Your task to perform on an android device: Open internet settings Image 0: 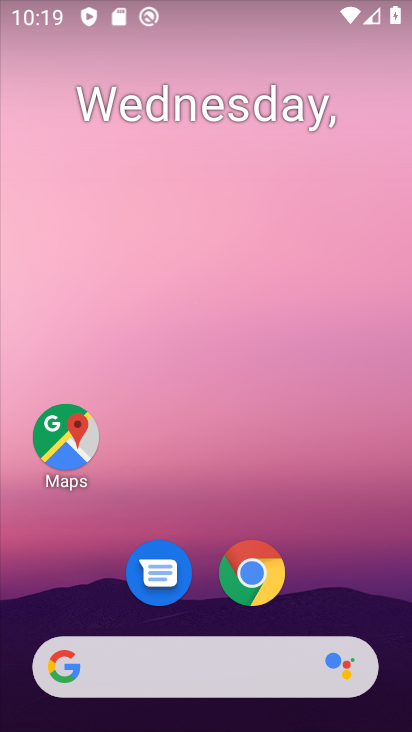
Step 0: drag from (363, 600) to (366, 171)
Your task to perform on an android device: Open internet settings Image 1: 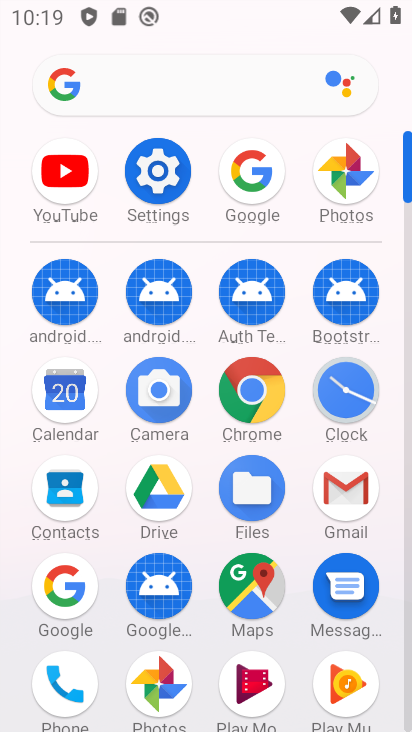
Step 1: click (173, 170)
Your task to perform on an android device: Open internet settings Image 2: 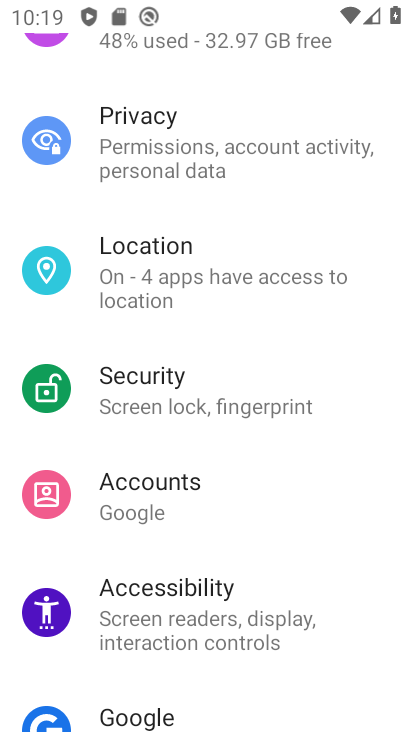
Step 2: drag from (346, 455) to (342, 559)
Your task to perform on an android device: Open internet settings Image 3: 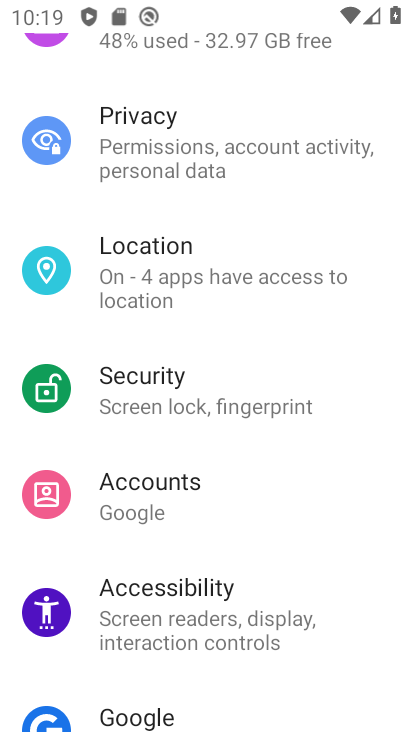
Step 3: drag from (371, 89) to (386, 596)
Your task to perform on an android device: Open internet settings Image 4: 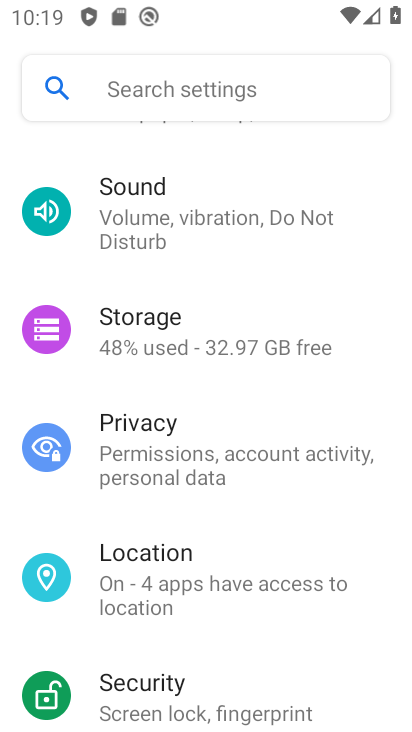
Step 4: drag from (381, 284) to (380, 731)
Your task to perform on an android device: Open internet settings Image 5: 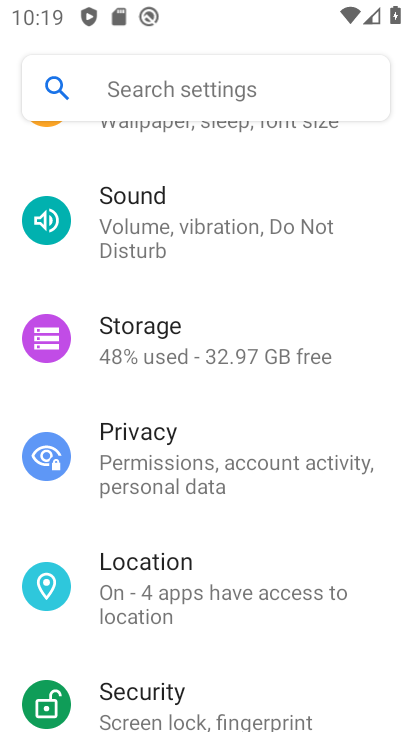
Step 5: drag from (377, 320) to (368, 506)
Your task to perform on an android device: Open internet settings Image 6: 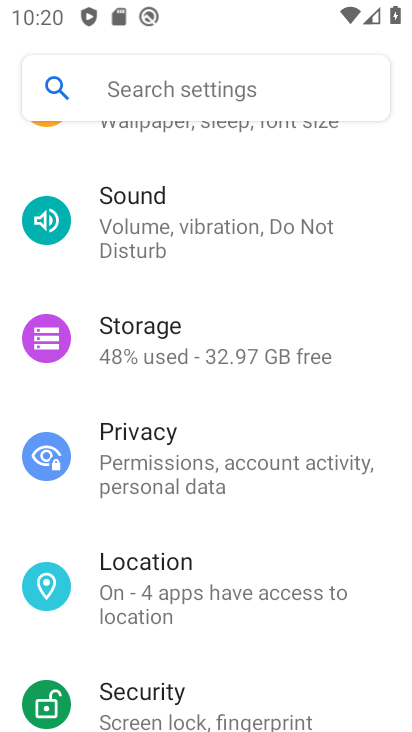
Step 6: drag from (375, 422) to (369, 689)
Your task to perform on an android device: Open internet settings Image 7: 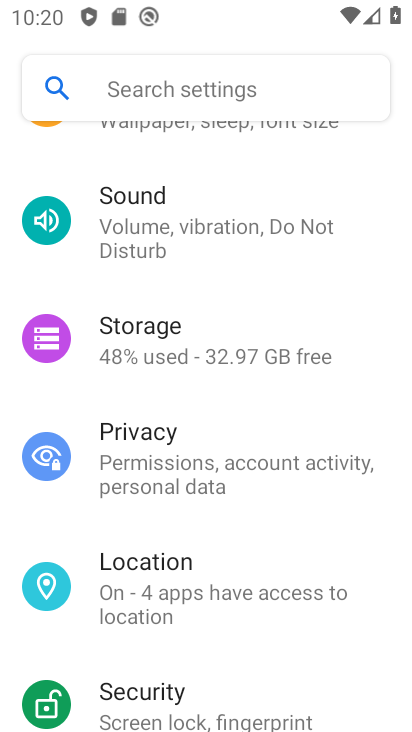
Step 7: drag from (370, 148) to (400, 662)
Your task to perform on an android device: Open internet settings Image 8: 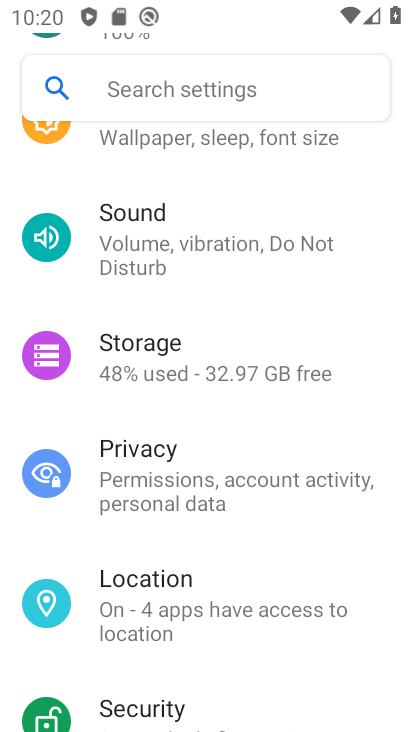
Step 8: drag from (373, 457) to (377, 603)
Your task to perform on an android device: Open internet settings Image 9: 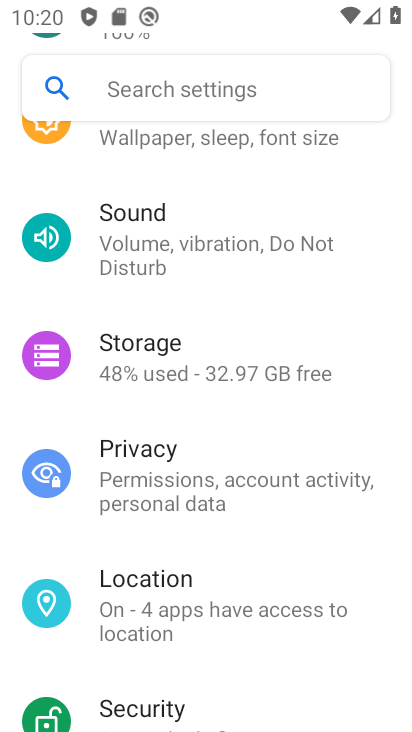
Step 9: drag from (372, 309) to (392, 601)
Your task to perform on an android device: Open internet settings Image 10: 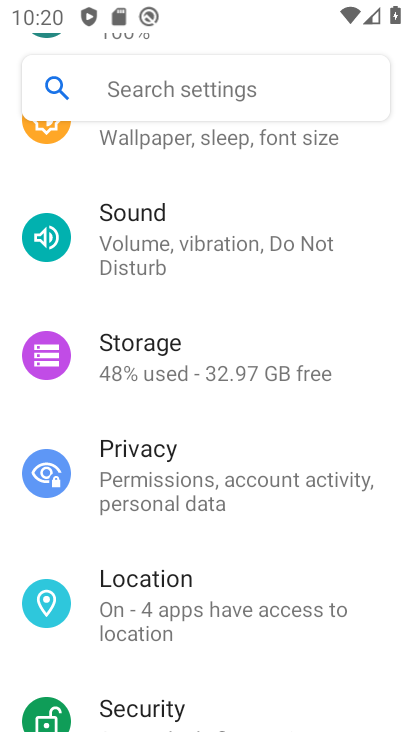
Step 10: drag from (387, 163) to (316, 636)
Your task to perform on an android device: Open internet settings Image 11: 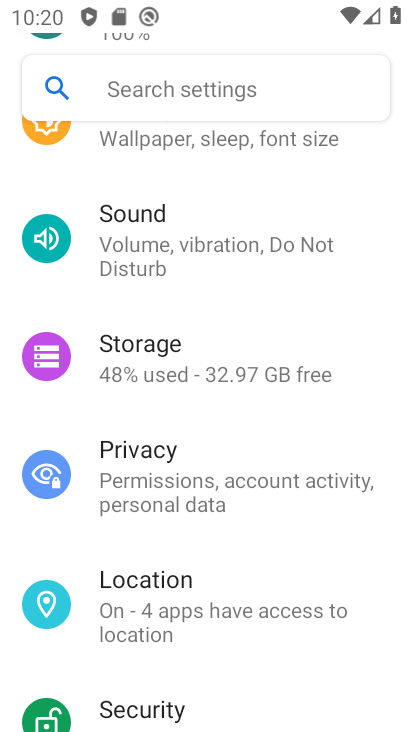
Step 11: drag from (366, 165) to (345, 724)
Your task to perform on an android device: Open internet settings Image 12: 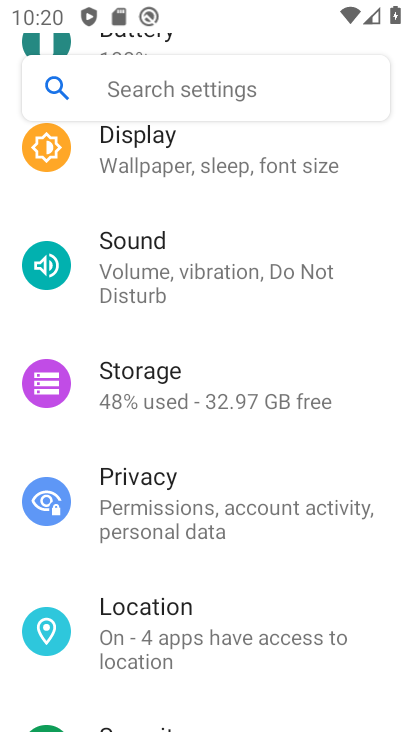
Step 12: drag from (379, 165) to (371, 582)
Your task to perform on an android device: Open internet settings Image 13: 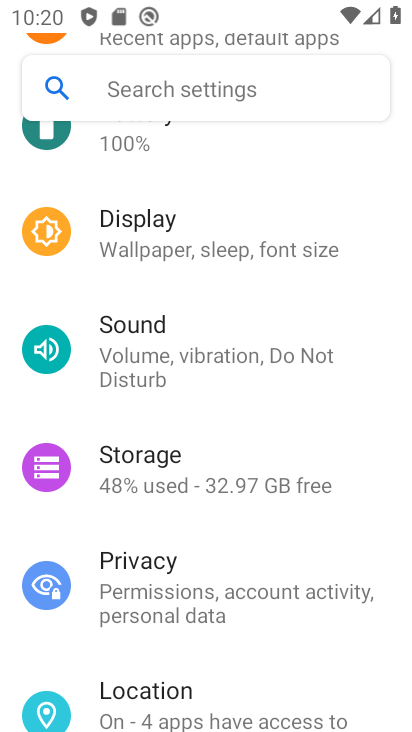
Step 13: drag from (386, 323) to (377, 682)
Your task to perform on an android device: Open internet settings Image 14: 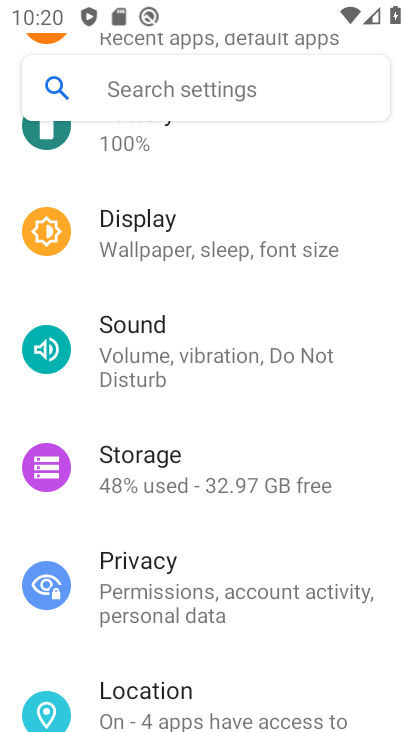
Step 14: drag from (383, 184) to (374, 626)
Your task to perform on an android device: Open internet settings Image 15: 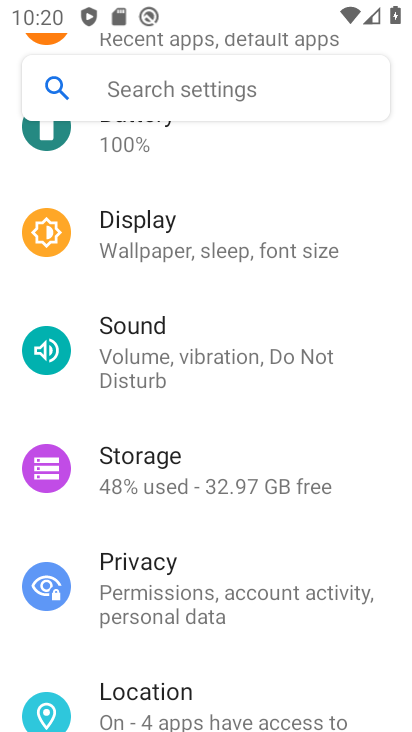
Step 15: drag from (365, 430) to (360, 632)
Your task to perform on an android device: Open internet settings Image 16: 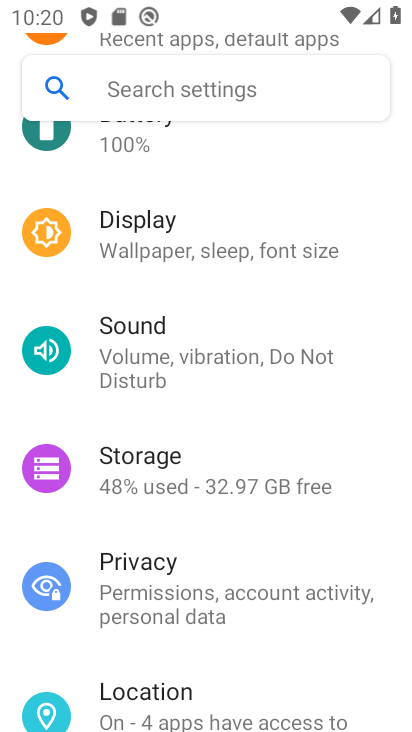
Step 16: drag from (387, 582) to (386, 626)
Your task to perform on an android device: Open internet settings Image 17: 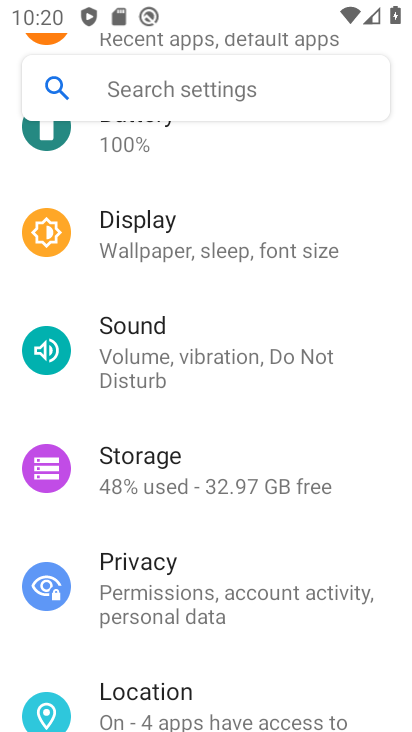
Step 17: drag from (364, 161) to (366, 711)
Your task to perform on an android device: Open internet settings Image 18: 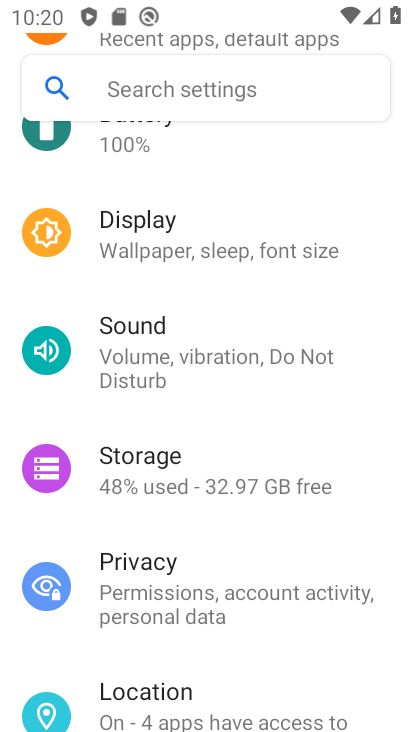
Step 18: click (366, 519)
Your task to perform on an android device: Open internet settings Image 19: 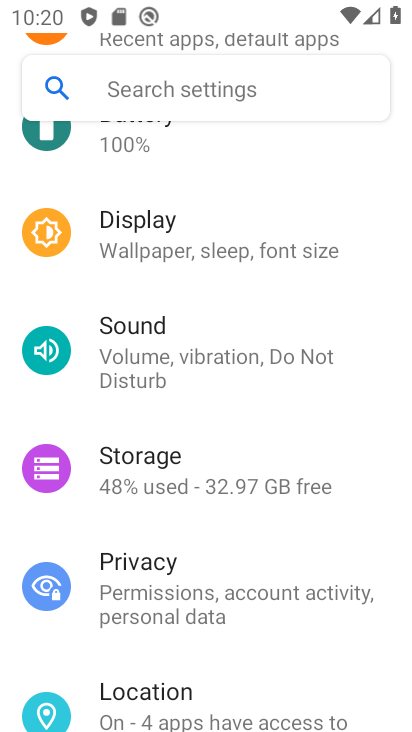
Step 19: drag from (386, 344) to (376, 587)
Your task to perform on an android device: Open internet settings Image 20: 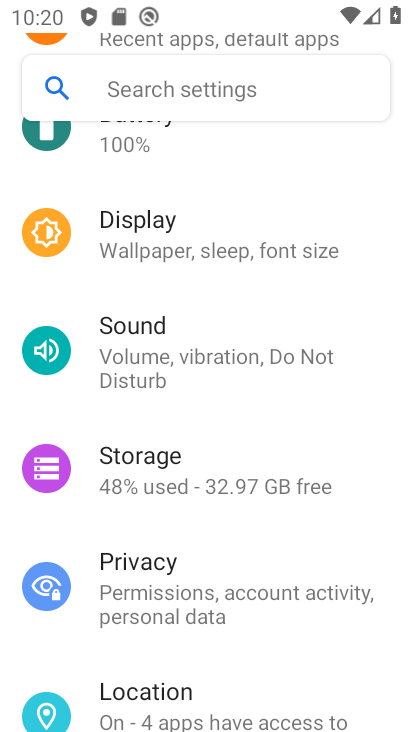
Step 20: drag from (384, 407) to (386, 594)
Your task to perform on an android device: Open internet settings Image 21: 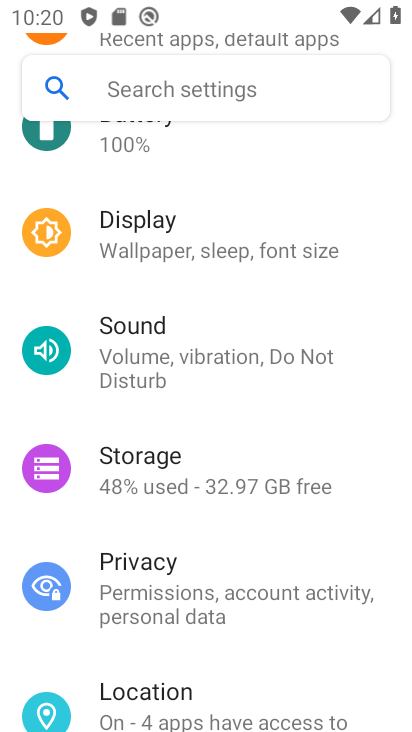
Step 21: drag from (364, 544) to (357, 731)
Your task to perform on an android device: Open internet settings Image 22: 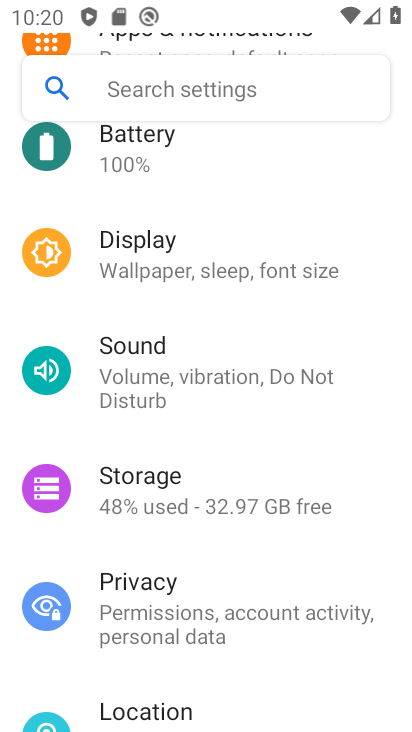
Step 22: drag from (387, 523) to (393, 656)
Your task to perform on an android device: Open internet settings Image 23: 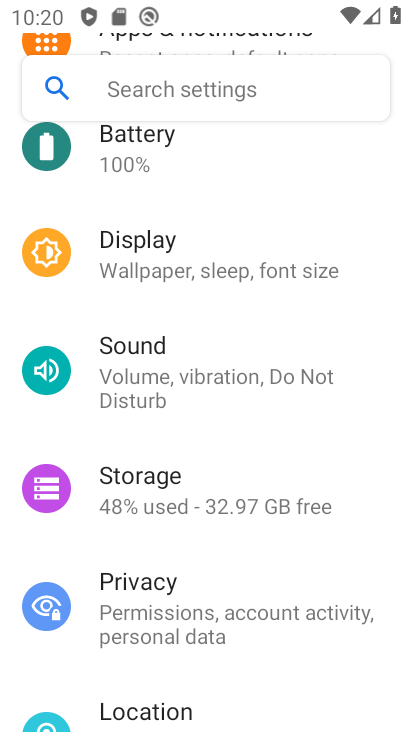
Step 23: drag from (390, 189) to (396, 581)
Your task to perform on an android device: Open internet settings Image 24: 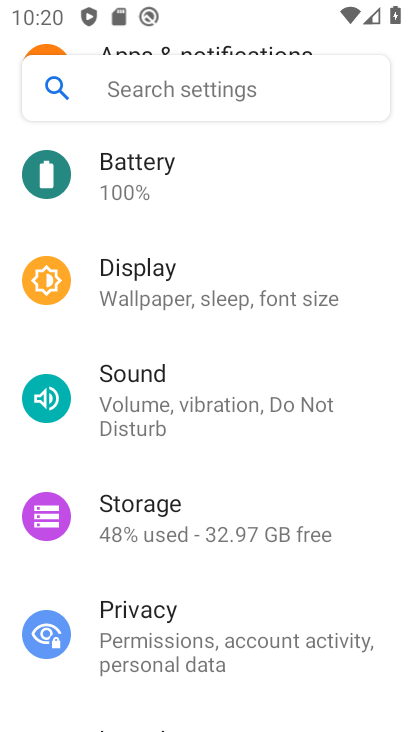
Step 24: drag from (388, 262) to (410, 582)
Your task to perform on an android device: Open internet settings Image 25: 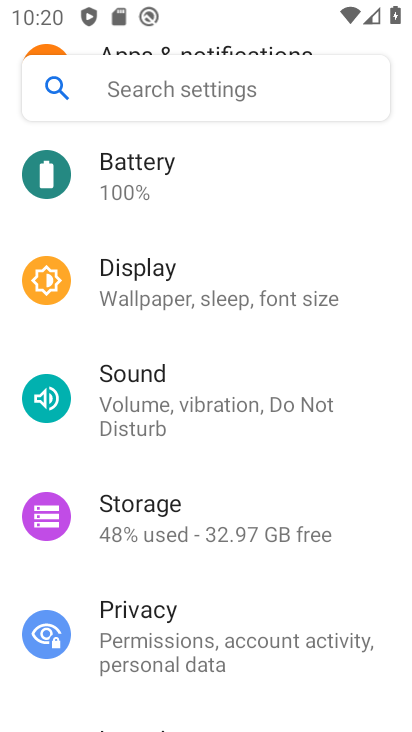
Step 25: drag from (411, 411) to (410, 630)
Your task to perform on an android device: Open internet settings Image 26: 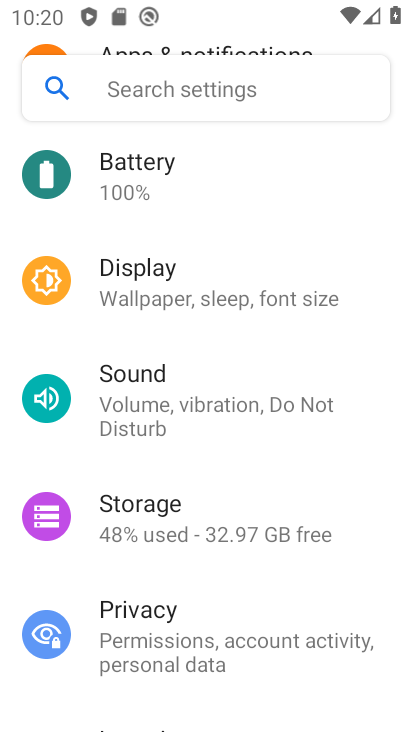
Step 26: drag from (372, 281) to (388, 544)
Your task to perform on an android device: Open internet settings Image 27: 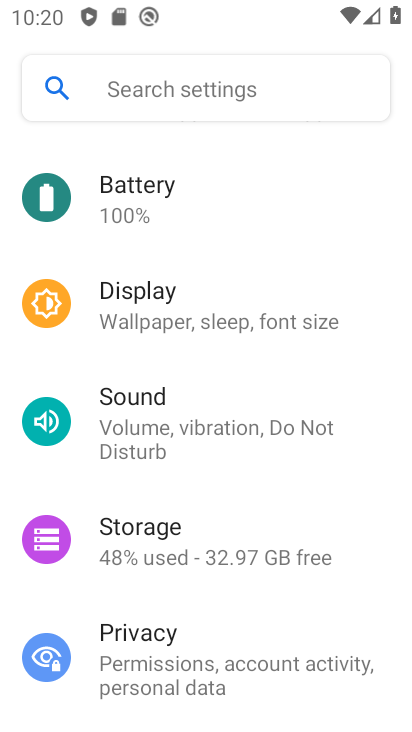
Step 27: drag from (402, 235) to (403, 528)
Your task to perform on an android device: Open internet settings Image 28: 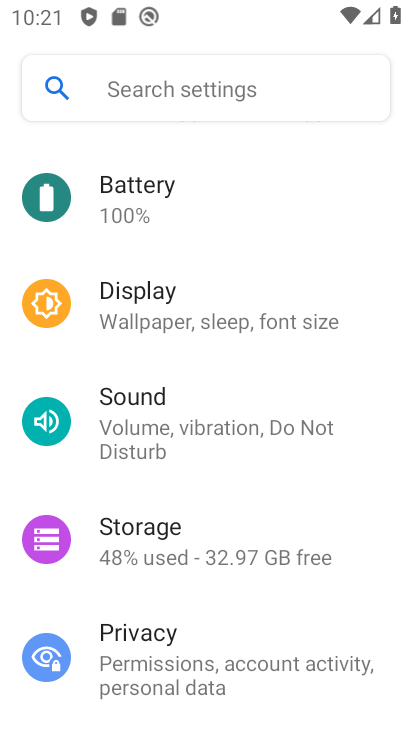
Step 28: drag from (367, 193) to (384, 625)
Your task to perform on an android device: Open internet settings Image 29: 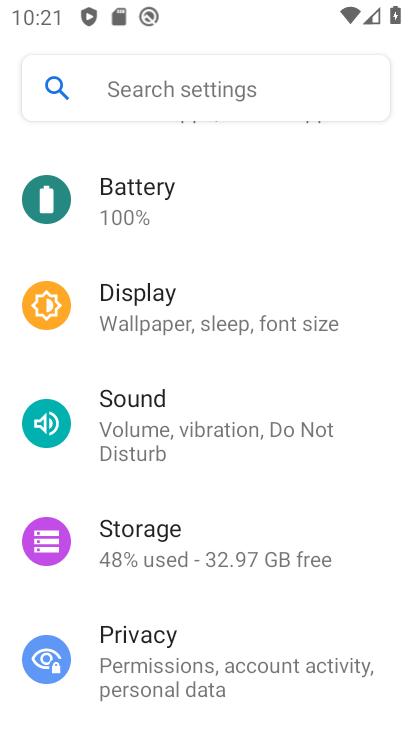
Step 29: drag from (370, 530) to (365, 587)
Your task to perform on an android device: Open internet settings Image 30: 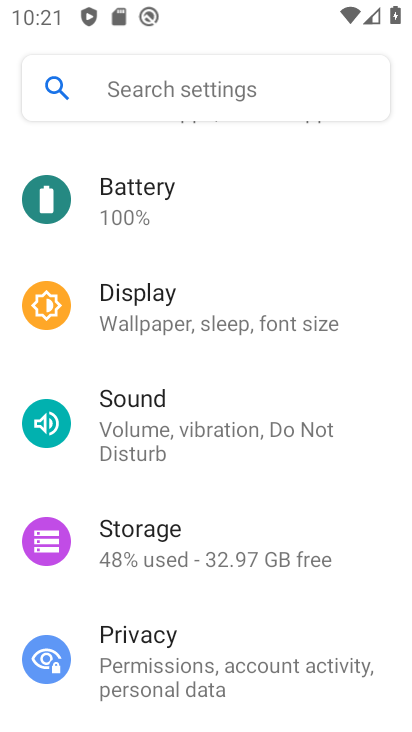
Step 30: drag from (382, 311) to (385, 498)
Your task to perform on an android device: Open internet settings Image 31: 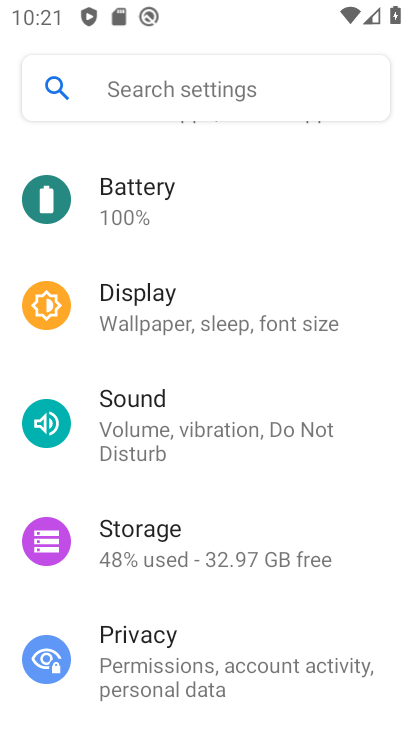
Step 31: drag from (407, 602) to (404, 661)
Your task to perform on an android device: Open internet settings Image 32: 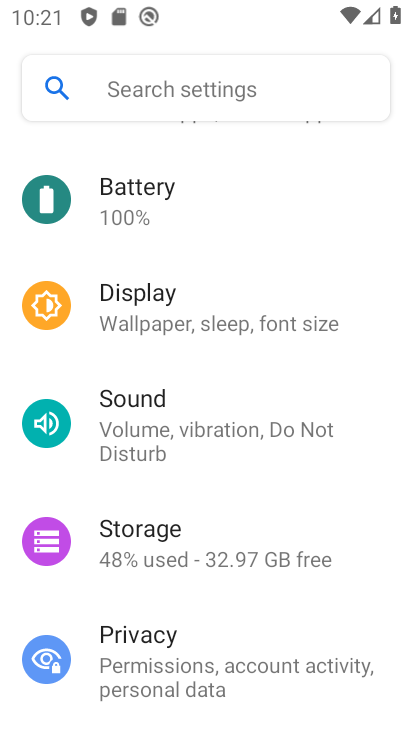
Step 32: drag from (360, 600) to (360, 634)
Your task to perform on an android device: Open internet settings Image 33: 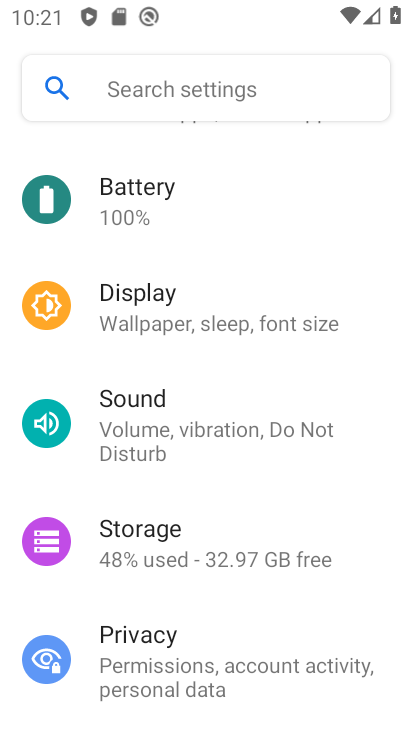
Step 33: drag from (370, 188) to (384, 551)
Your task to perform on an android device: Open internet settings Image 34: 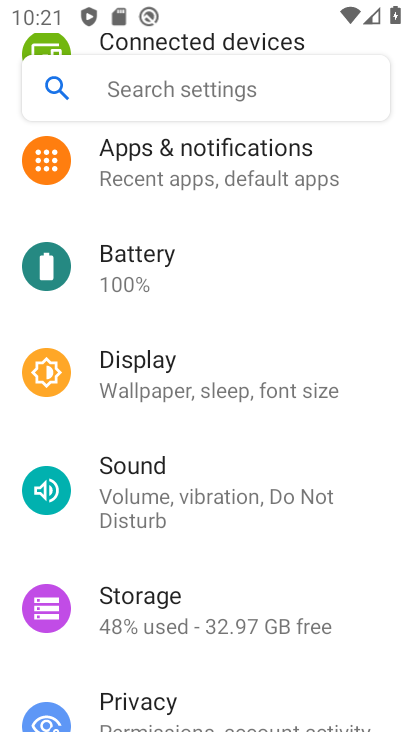
Step 34: drag from (366, 156) to (390, 659)
Your task to perform on an android device: Open internet settings Image 35: 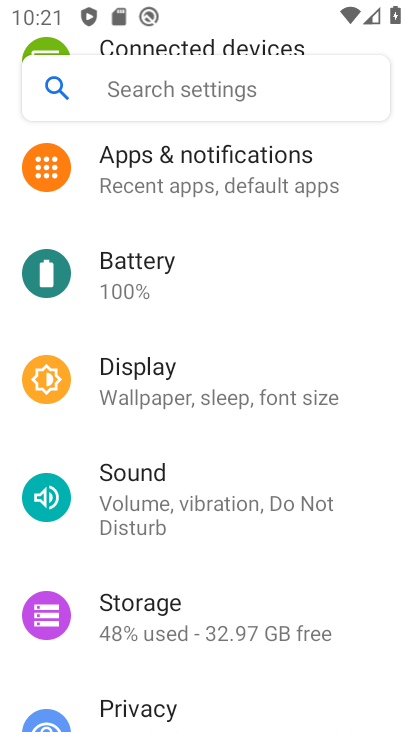
Step 35: drag from (359, 162) to (375, 546)
Your task to perform on an android device: Open internet settings Image 36: 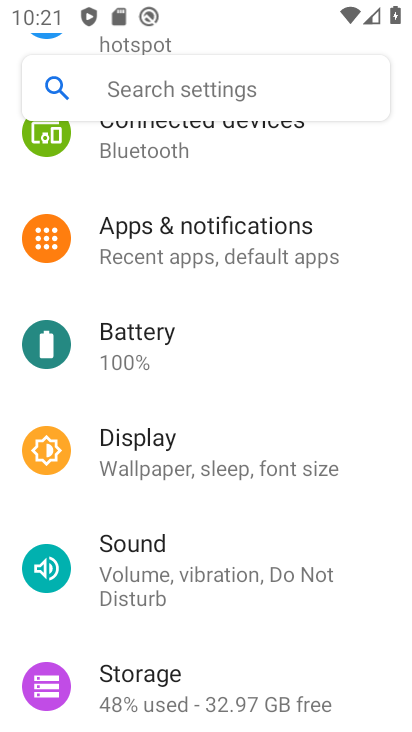
Step 36: drag from (394, 415) to (393, 516)
Your task to perform on an android device: Open internet settings Image 37: 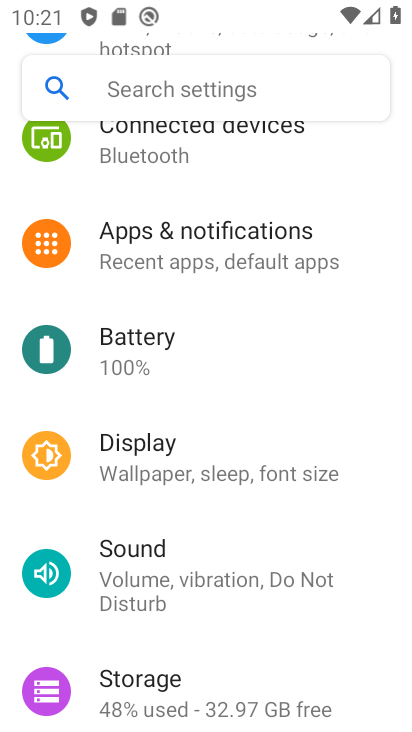
Step 37: drag from (378, 143) to (380, 634)
Your task to perform on an android device: Open internet settings Image 38: 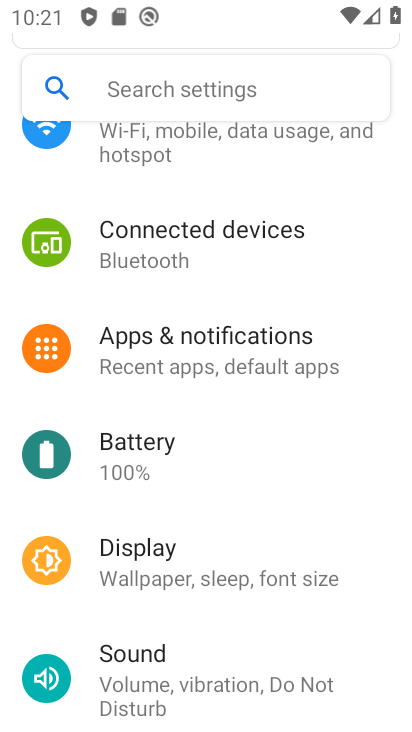
Step 38: drag from (367, 507) to (367, 698)
Your task to perform on an android device: Open internet settings Image 39: 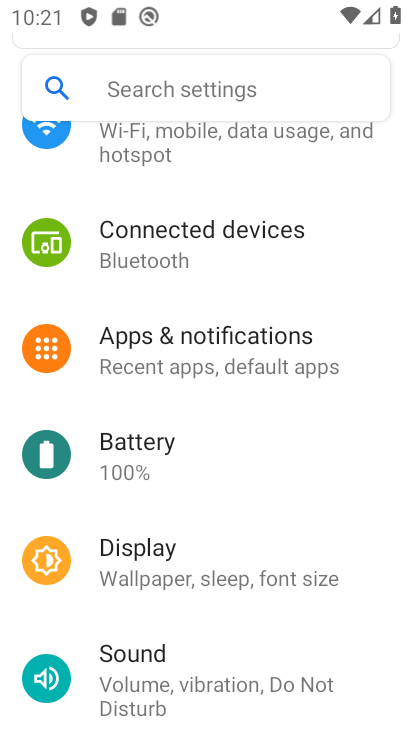
Step 39: click (168, 135)
Your task to perform on an android device: Open internet settings Image 40: 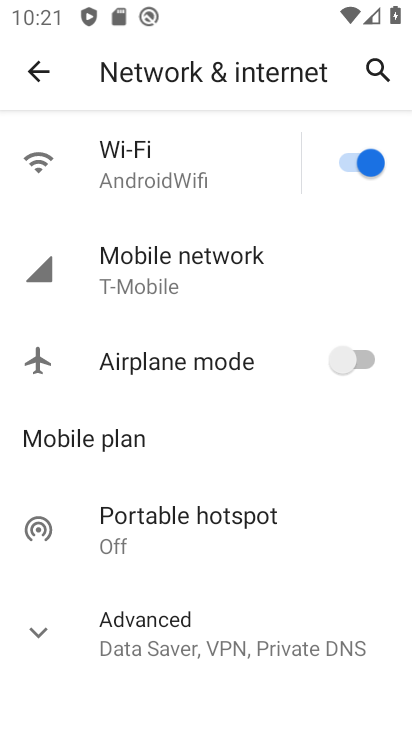
Step 40: task complete